Your task to perform on an android device: turn off airplane mode Image 0: 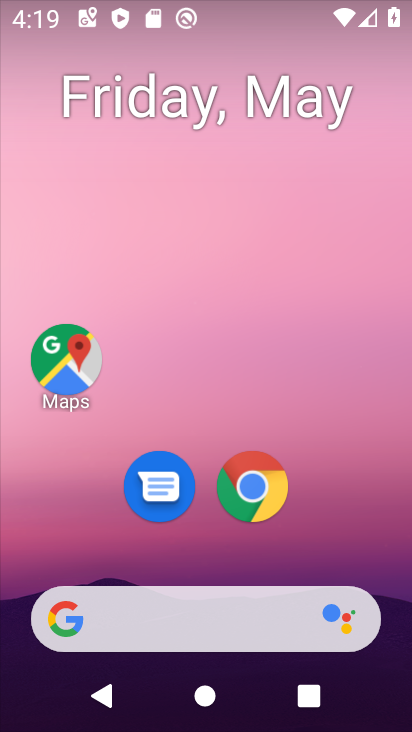
Step 0: drag from (391, 556) to (312, 32)
Your task to perform on an android device: turn off airplane mode Image 1: 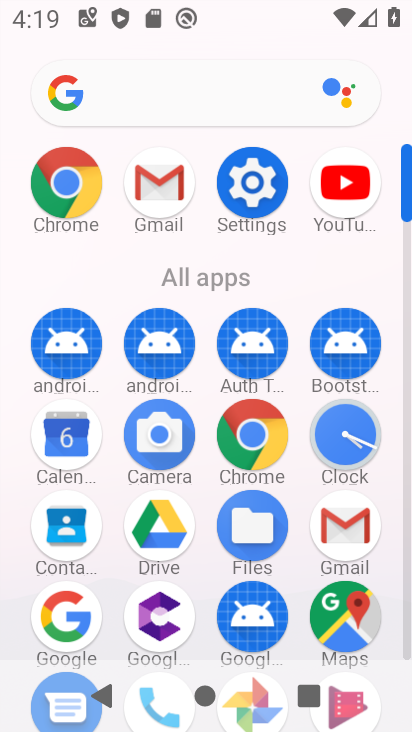
Step 1: drag from (8, 548) to (34, 242)
Your task to perform on an android device: turn off airplane mode Image 2: 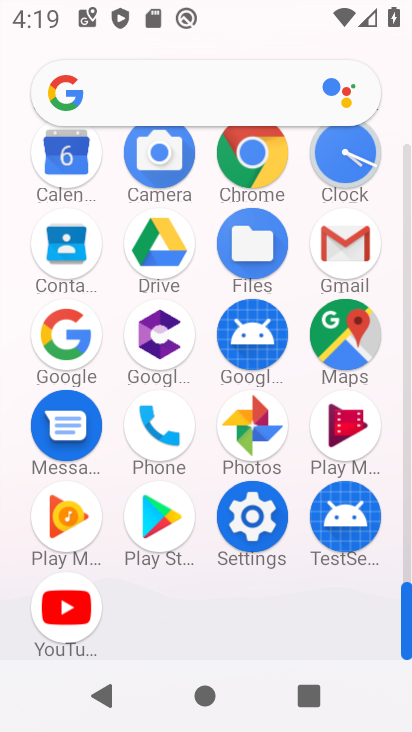
Step 2: click (247, 514)
Your task to perform on an android device: turn off airplane mode Image 3: 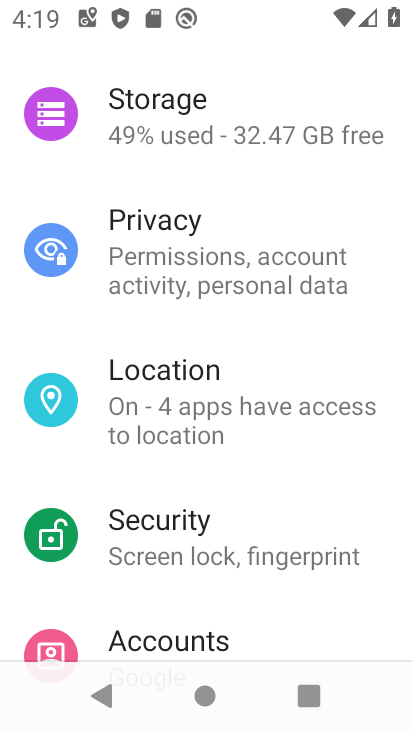
Step 3: drag from (236, 210) to (206, 629)
Your task to perform on an android device: turn off airplane mode Image 4: 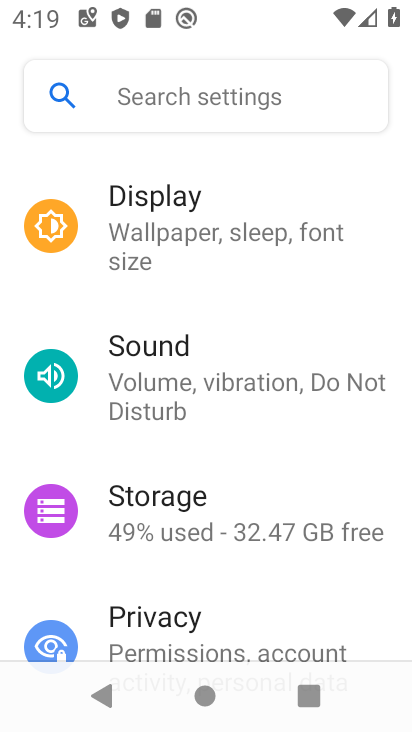
Step 4: drag from (278, 237) to (248, 610)
Your task to perform on an android device: turn off airplane mode Image 5: 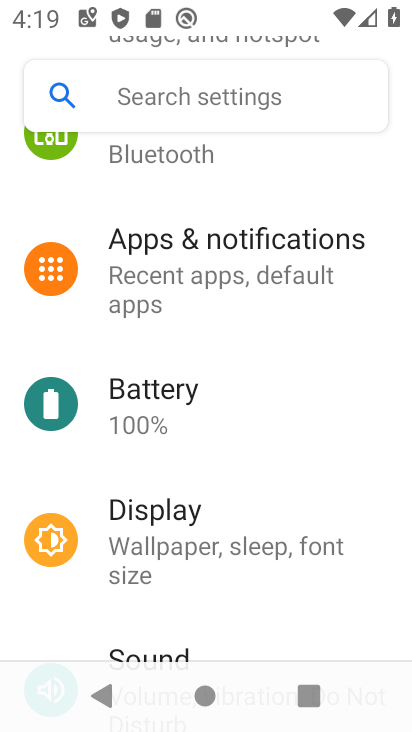
Step 5: drag from (298, 275) to (254, 562)
Your task to perform on an android device: turn off airplane mode Image 6: 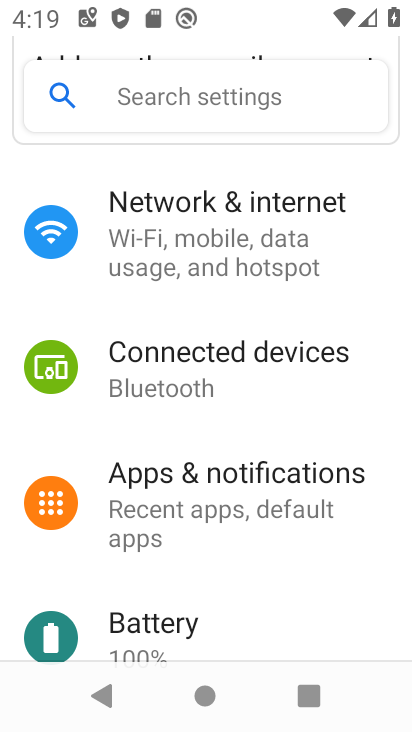
Step 6: drag from (283, 256) to (229, 561)
Your task to perform on an android device: turn off airplane mode Image 7: 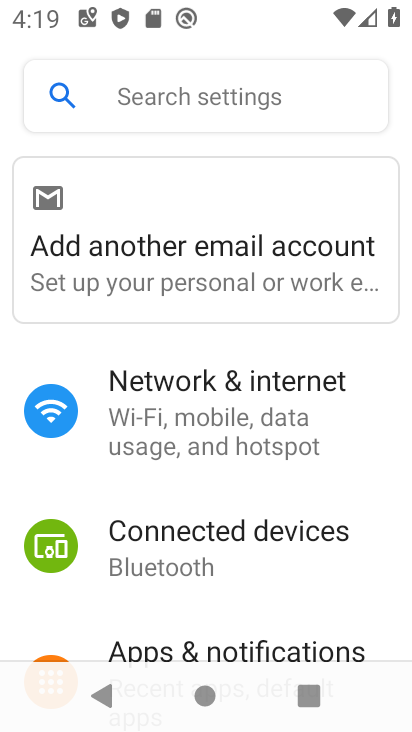
Step 7: click (203, 418)
Your task to perform on an android device: turn off airplane mode Image 8: 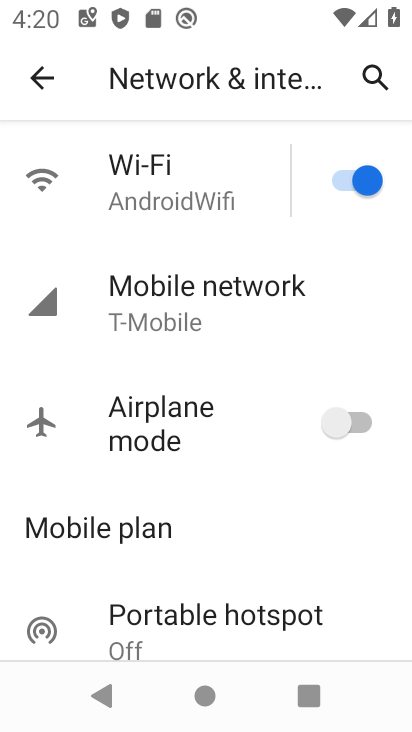
Step 8: task complete